Your task to perform on an android device: Open Wikipedia Image 0: 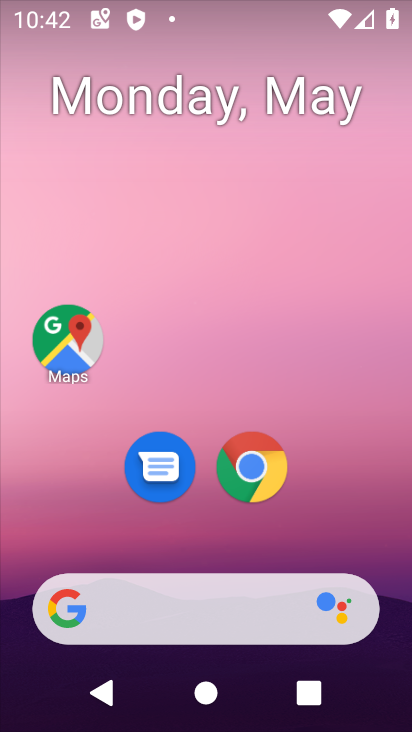
Step 0: click (254, 471)
Your task to perform on an android device: Open Wikipedia Image 1: 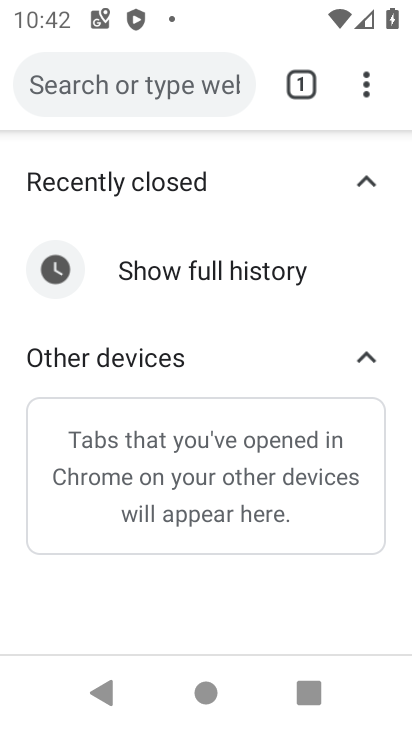
Step 1: click (89, 87)
Your task to perform on an android device: Open Wikipedia Image 2: 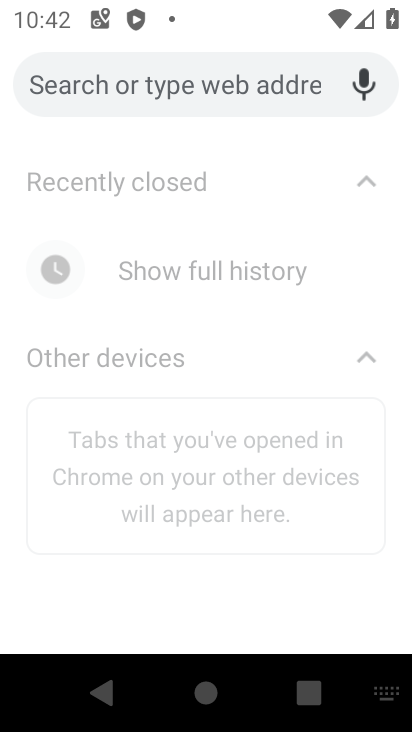
Step 2: type "wikipedia"
Your task to perform on an android device: Open Wikipedia Image 3: 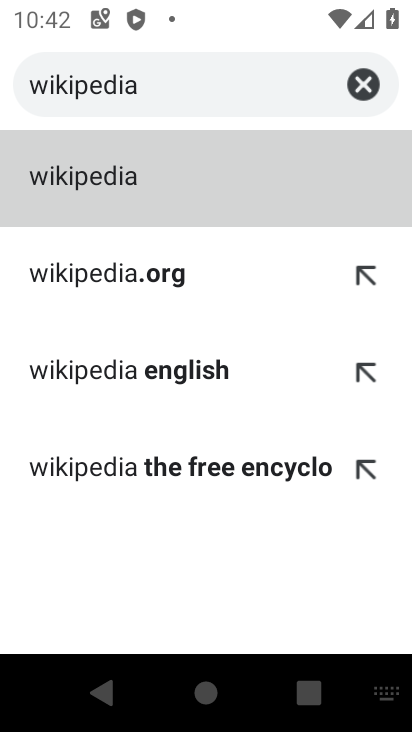
Step 3: click (103, 184)
Your task to perform on an android device: Open Wikipedia Image 4: 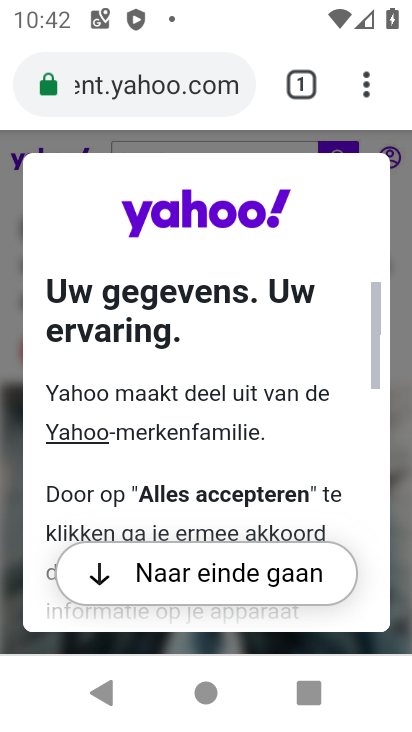
Step 4: click (143, 85)
Your task to perform on an android device: Open Wikipedia Image 5: 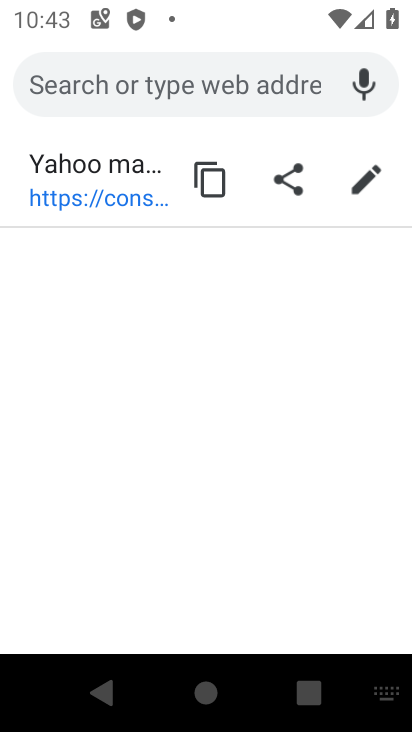
Step 5: type "wikipedia"
Your task to perform on an android device: Open Wikipedia Image 6: 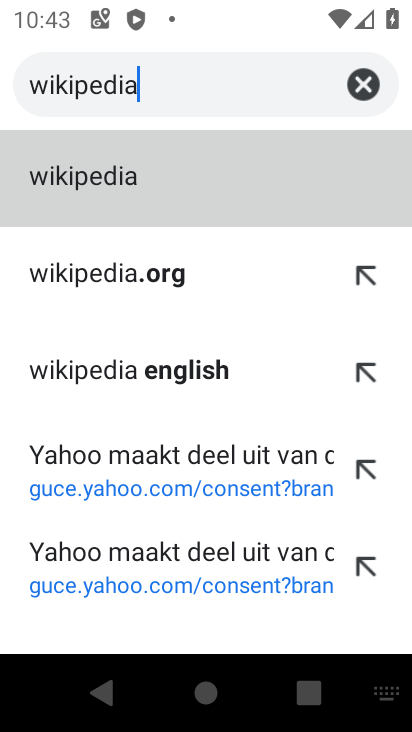
Step 6: click (102, 185)
Your task to perform on an android device: Open Wikipedia Image 7: 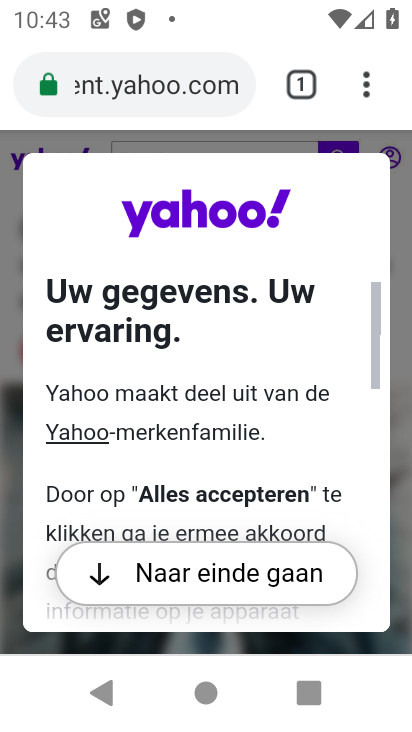
Step 7: task complete